Your task to perform on an android device: Open Youtube and go to "Your channel" Image 0: 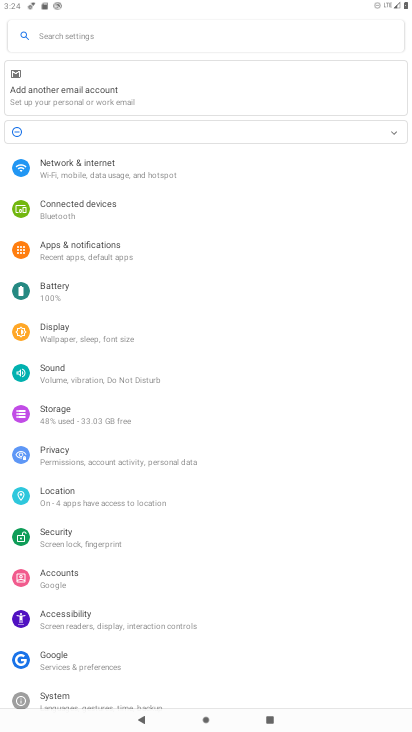
Step 0: press home button
Your task to perform on an android device: Open Youtube and go to "Your channel" Image 1: 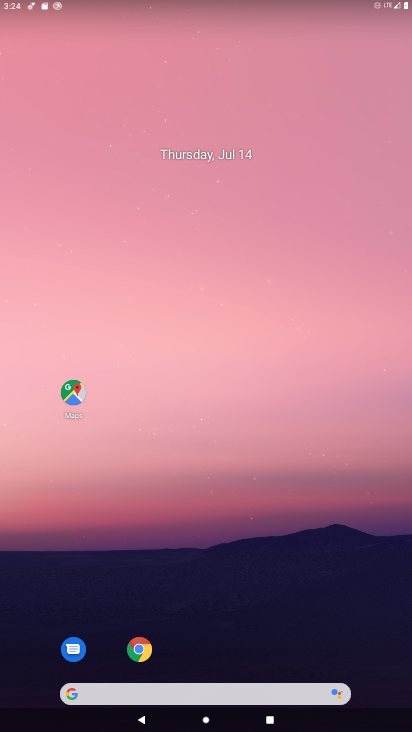
Step 1: drag from (264, 601) to (264, 301)
Your task to perform on an android device: Open Youtube and go to "Your channel" Image 2: 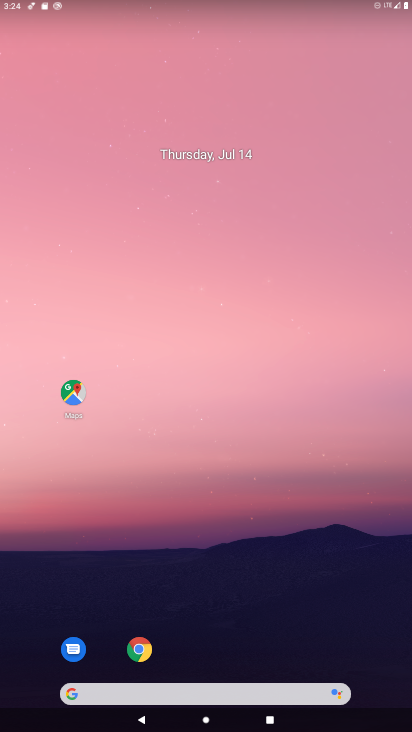
Step 2: drag from (241, 660) to (224, 271)
Your task to perform on an android device: Open Youtube and go to "Your channel" Image 3: 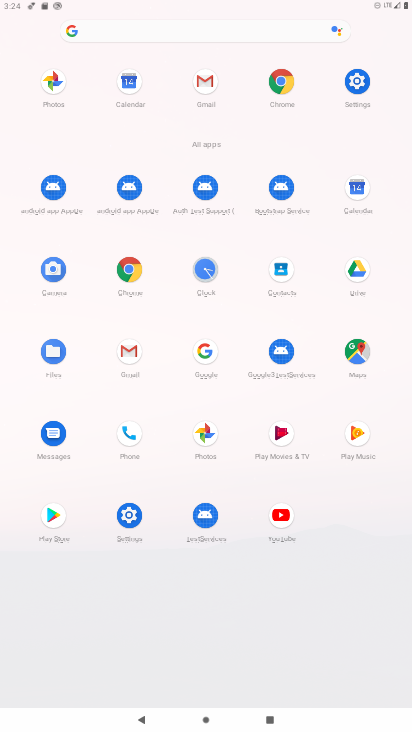
Step 3: click (283, 501)
Your task to perform on an android device: Open Youtube and go to "Your channel" Image 4: 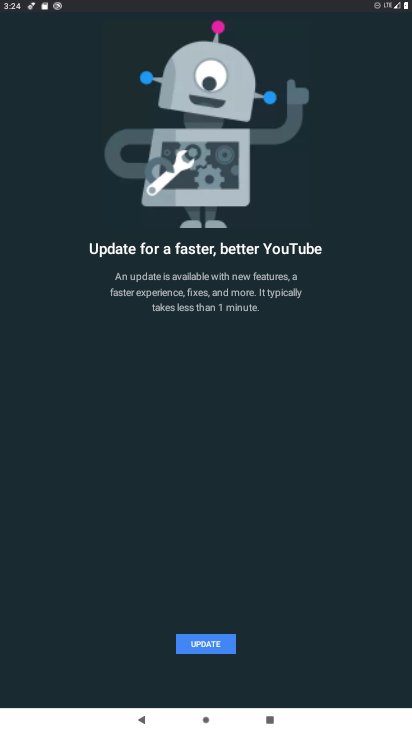
Step 4: task complete